Your task to perform on an android device: turn off location history Image 0: 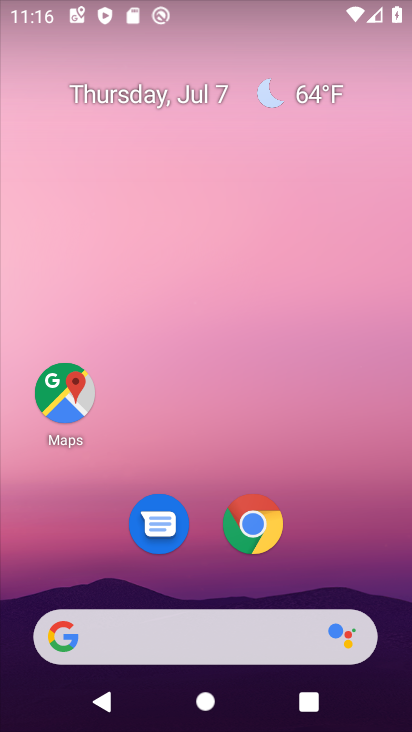
Step 0: drag from (303, 552) to (328, 5)
Your task to perform on an android device: turn off location history Image 1: 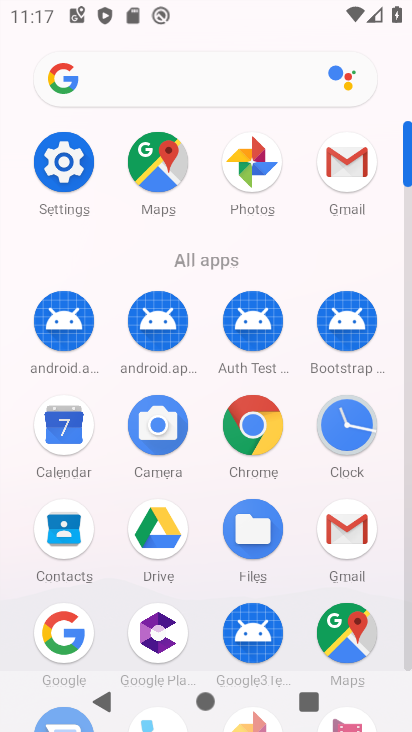
Step 1: click (78, 158)
Your task to perform on an android device: turn off location history Image 2: 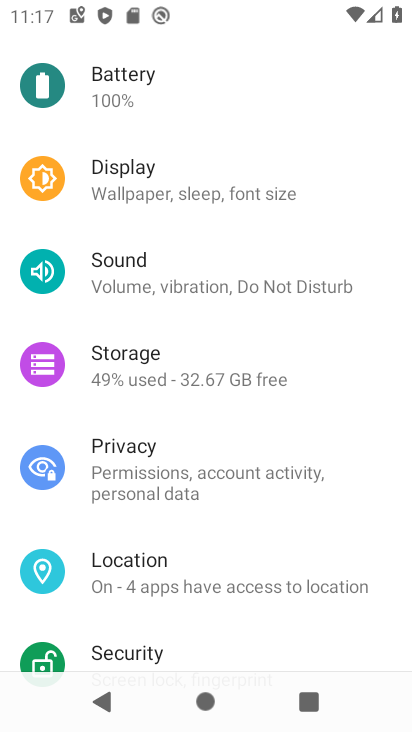
Step 2: click (183, 574)
Your task to perform on an android device: turn off location history Image 3: 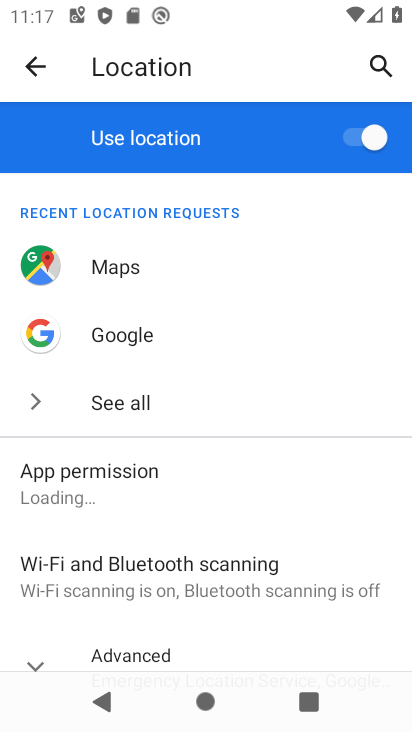
Step 3: click (28, 655)
Your task to perform on an android device: turn off location history Image 4: 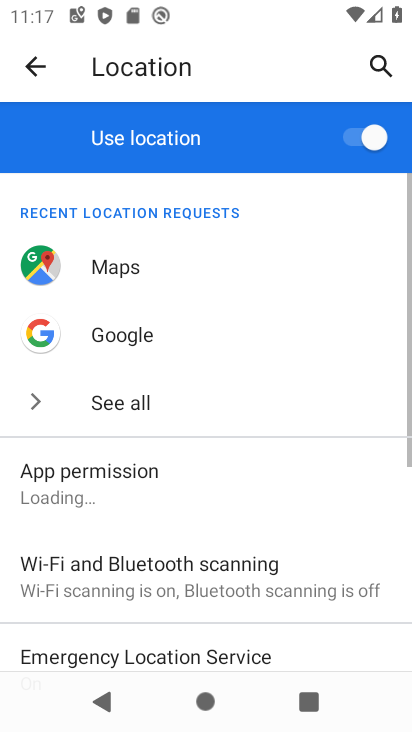
Step 4: drag from (205, 488) to (227, 47)
Your task to perform on an android device: turn off location history Image 5: 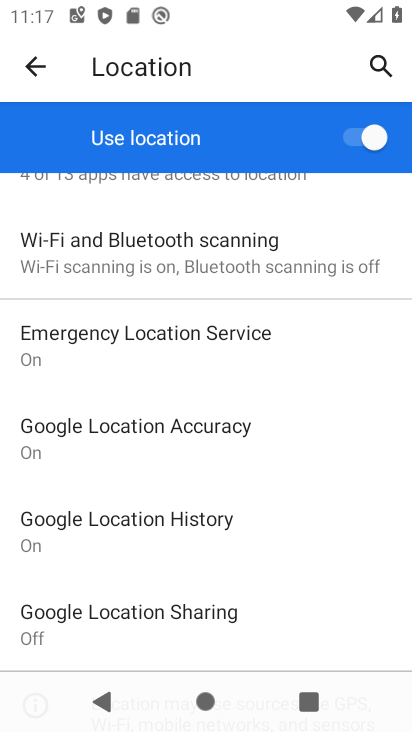
Step 5: click (149, 521)
Your task to perform on an android device: turn off location history Image 6: 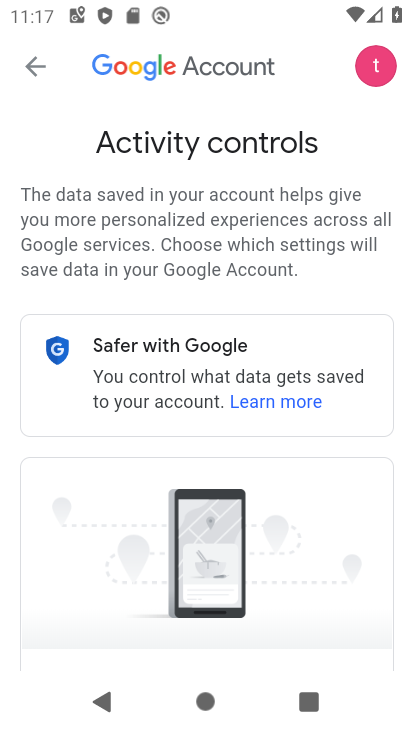
Step 6: task complete